Your task to perform on an android device: Go to network settings Image 0: 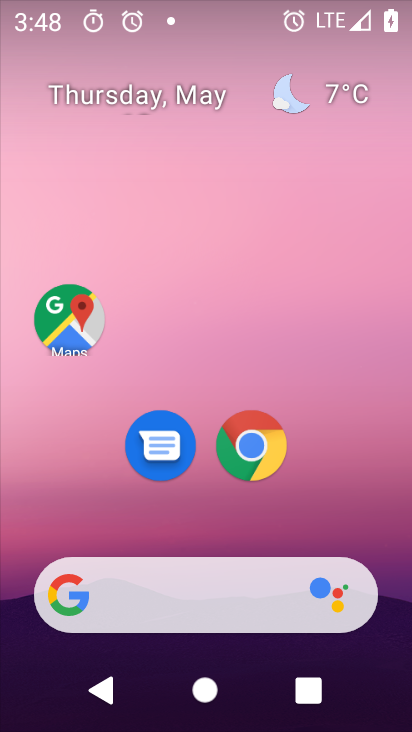
Step 0: drag from (372, 538) to (398, 426)
Your task to perform on an android device: Go to network settings Image 1: 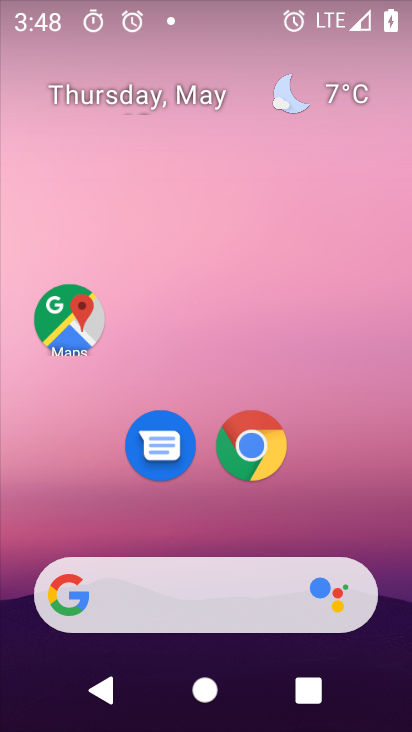
Step 1: click (73, 206)
Your task to perform on an android device: Go to network settings Image 2: 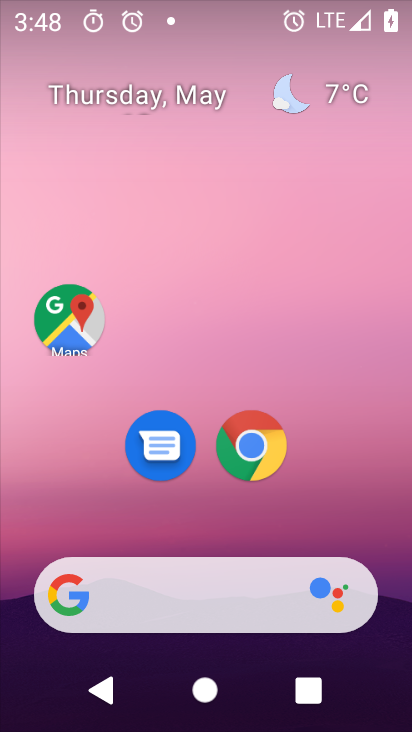
Step 2: drag from (380, 528) to (409, 6)
Your task to perform on an android device: Go to network settings Image 3: 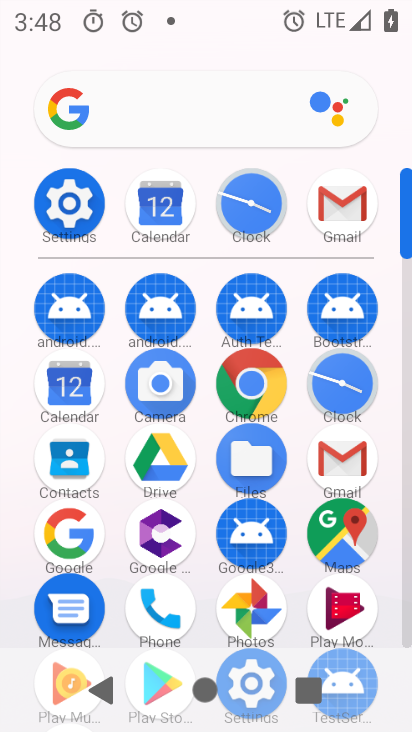
Step 3: click (63, 221)
Your task to perform on an android device: Go to network settings Image 4: 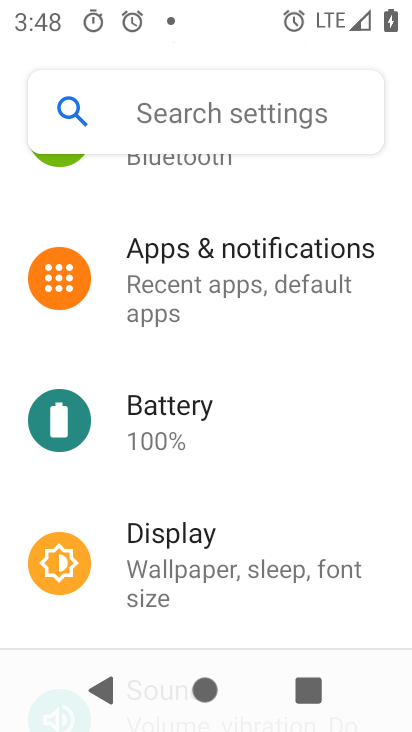
Step 4: drag from (370, 329) to (393, 557)
Your task to perform on an android device: Go to network settings Image 5: 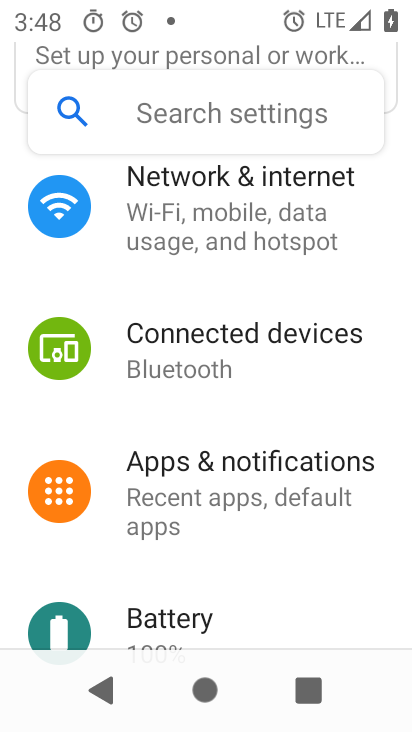
Step 5: click (220, 231)
Your task to perform on an android device: Go to network settings Image 6: 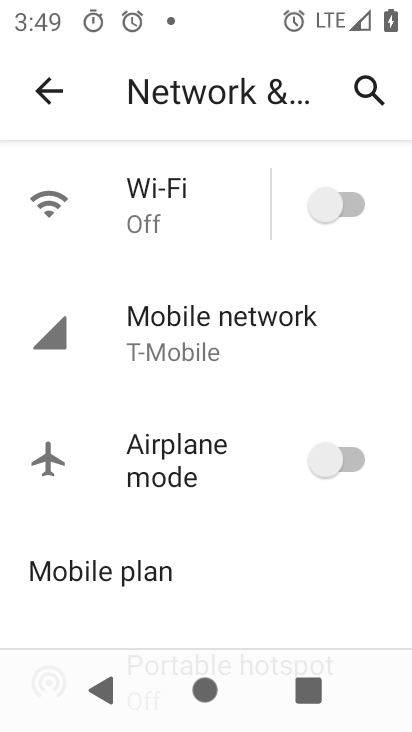
Step 6: click (160, 349)
Your task to perform on an android device: Go to network settings Image 7: 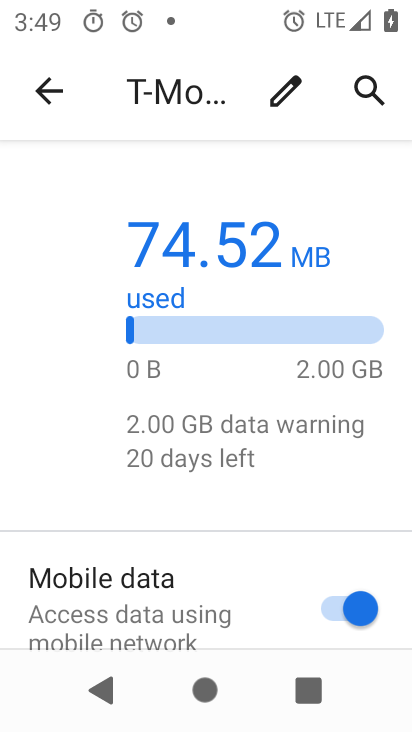
Step 7: task complete